Your task to perform on an android device: Open Yahoo.com Image 0: 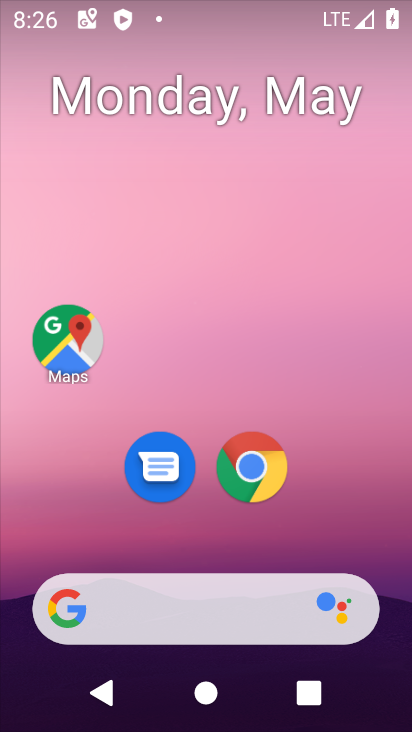
Step 0: click (250, 478)
Your task to perform on an android device: Open Yahoo.com Image 1: 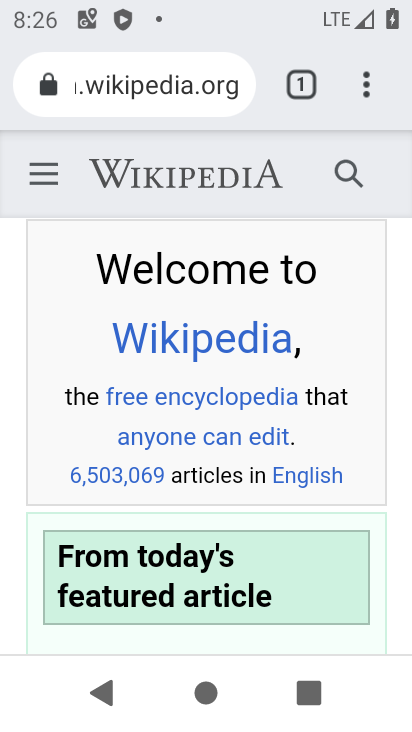
Step 1: click (298, 86)
Your task to perform on an android device: Open Yahoo.com Image 2: 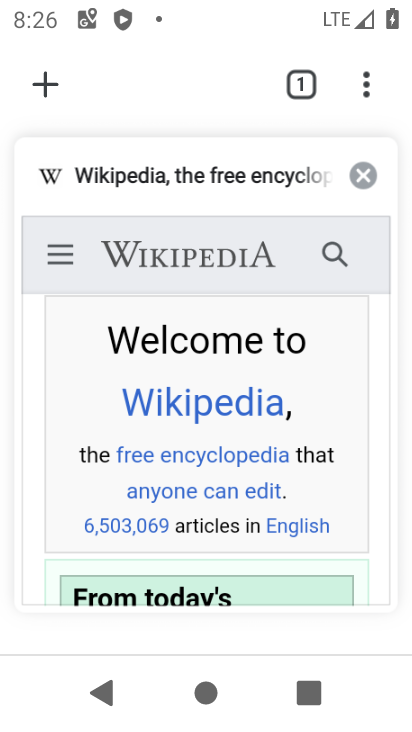
Step 2: click (36, 94)
Your task to perform on an android device: Open Yahoo.com Image 3: 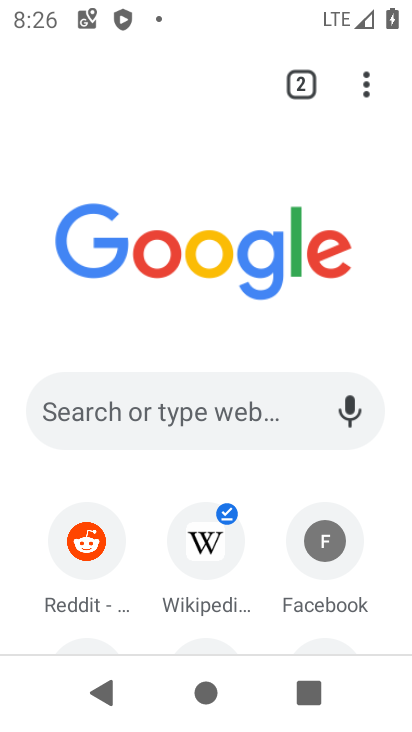
Step 3: drag from (275, 572) to (294, 247)
Your task to perform on an android device: Open Yahoo.com Image 4: 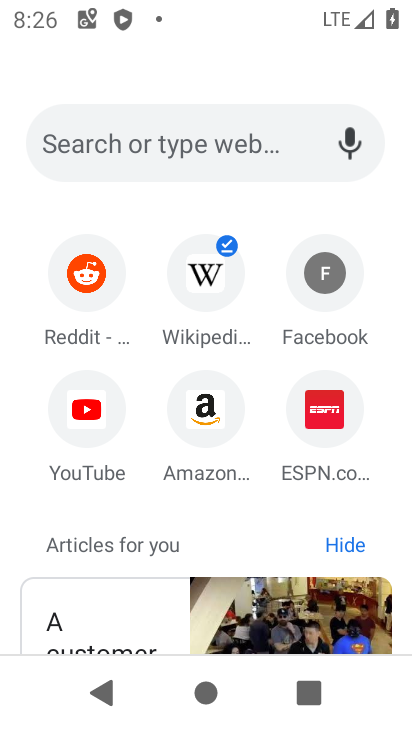
Step 4: click (180, 148)
Your task to perform on an android device: Open Yahoo.com Image 5: 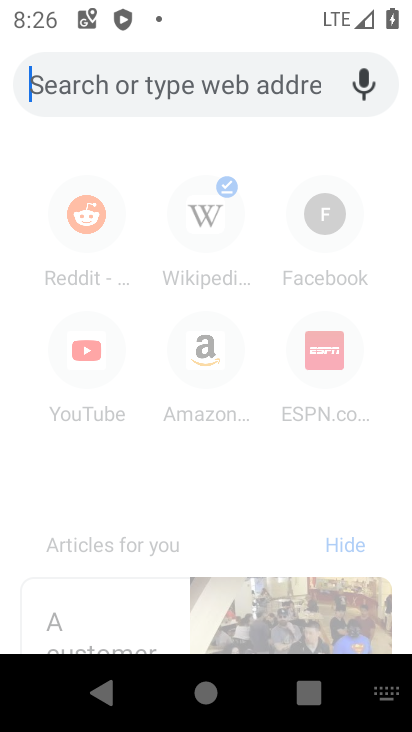
Step 5: type "yahoo.com"
Your task to perform on an android device: Open Yahoo.com Image 6: 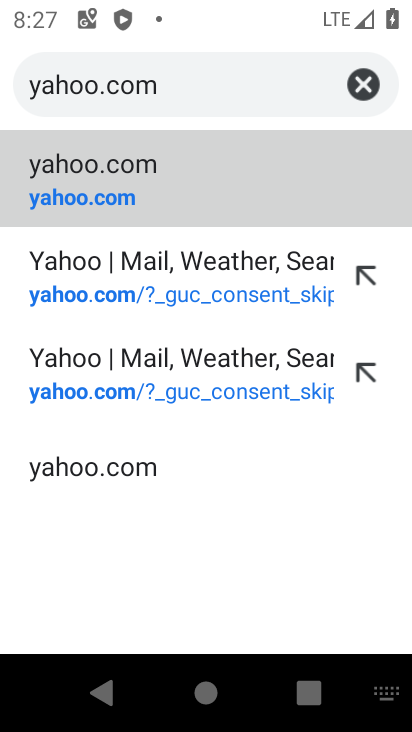
Step 6: click (248, 199)
Your task to perform on an android device: Open Yahoo.com Image 7: 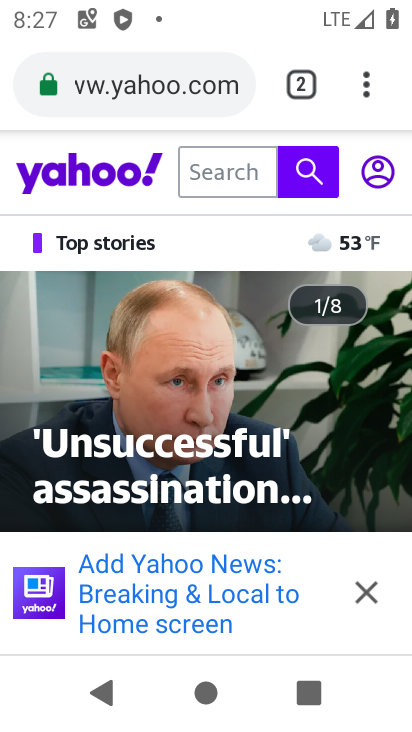
Step 7: task complete